Your task to perform on an android device: Open Google Chrome and click the shortcut for Amazon.com Image 0: 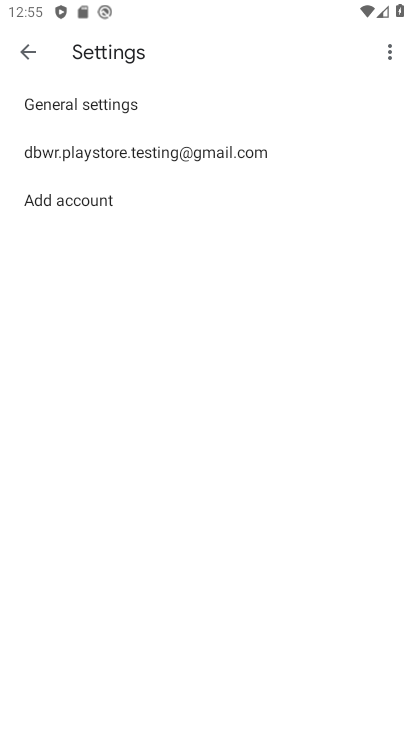
Step 0: press home button
Your task to perform on an android device: Open Google Chrome and click the shortcut for Amazon.com Image 1: 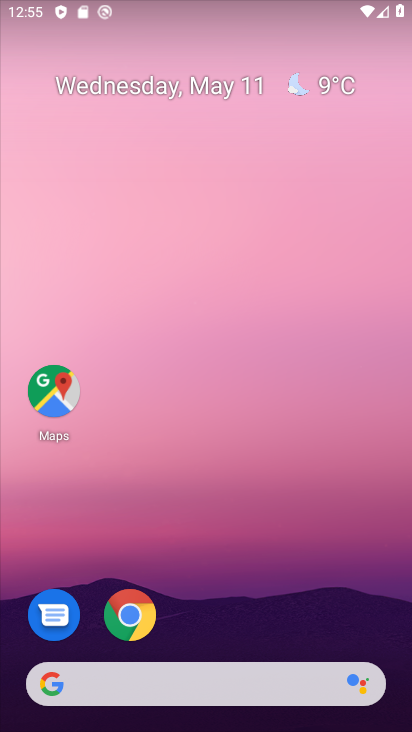
Step 1: drag from (258, 608) to (280, 170)
Your task to perform on an android device: Open Google Chrome and click the shortcut for Amazon.com Image 2: 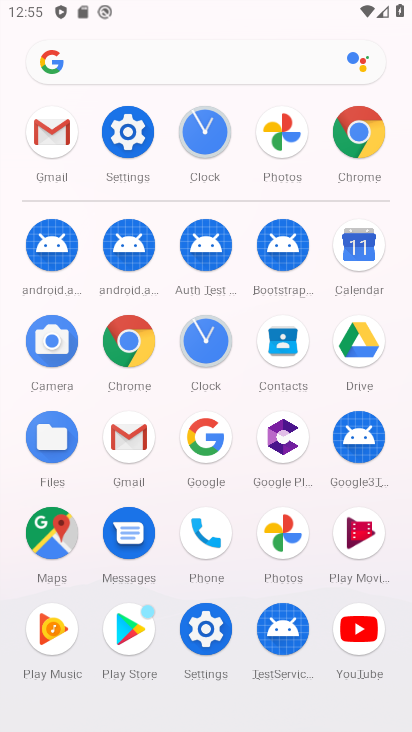
Step 2: click (363, 163)
Your task to perform on an android device: Open Google Chrome and click the shortcut for Amazon.com Image 3: 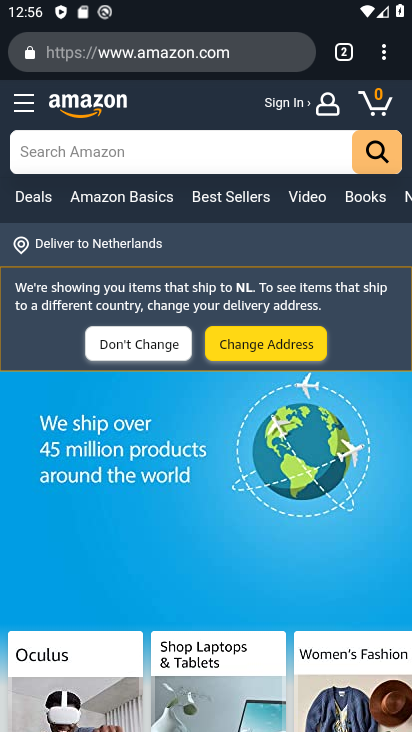
Step 3: task complete